Your task to perform on an android device: Open Amazon Image 0: 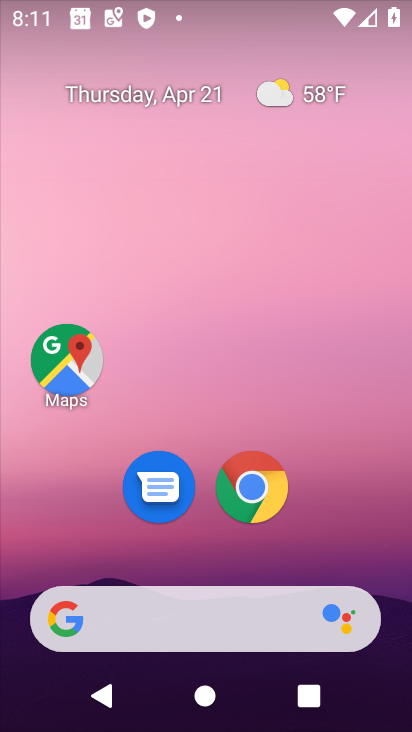
Step 0: drag from (349, 518) to (279, 15)
Your task to perform on an android device: Open Amazon Image 1: 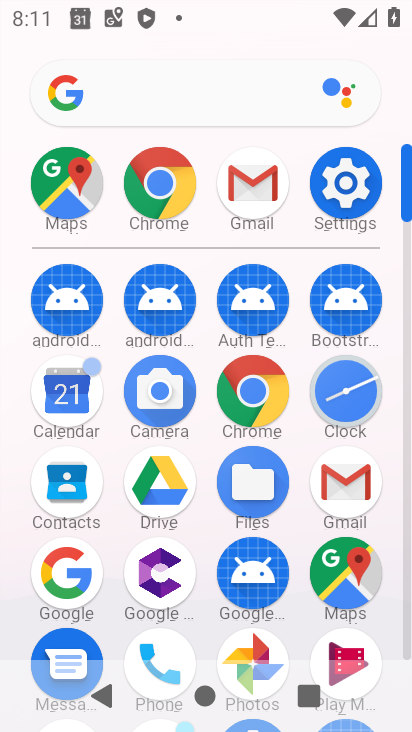
Step 1: click (160, 173)
Your task to perform on an android device: Open Amazon Image 2: 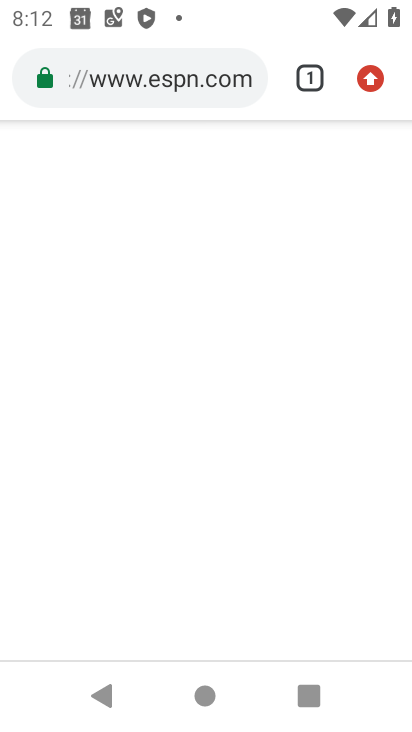
Step 2: click (156, 74)
Your task to perform on an android device: Open Amazon Image 3: 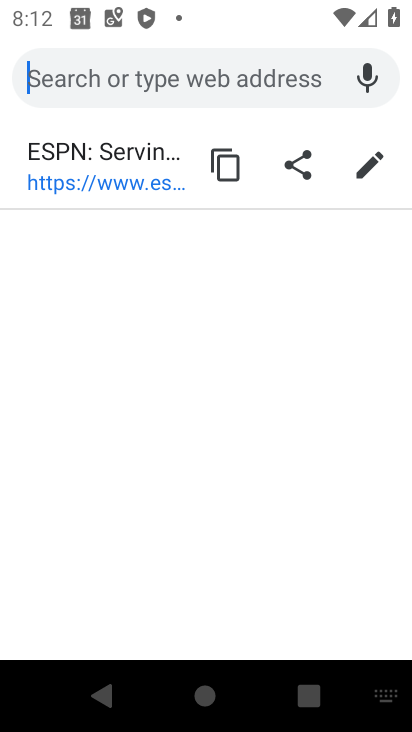
Step 3: type "Amazon"
Your task to perform on an android device: Open Amazon Image 4: 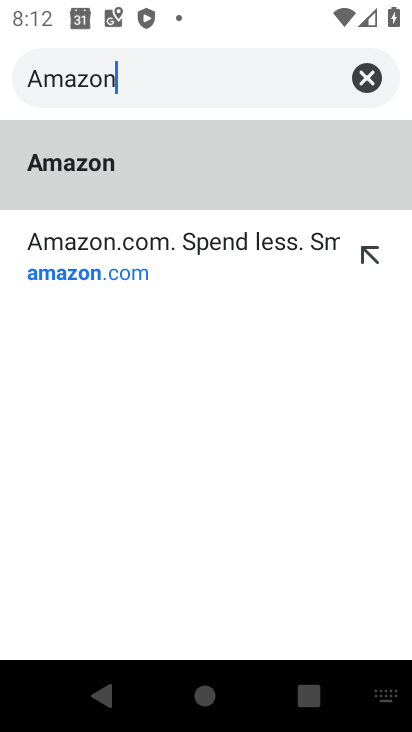
Step 4: type ""
Your task to perform on an android device: Open Amazon Image 5: 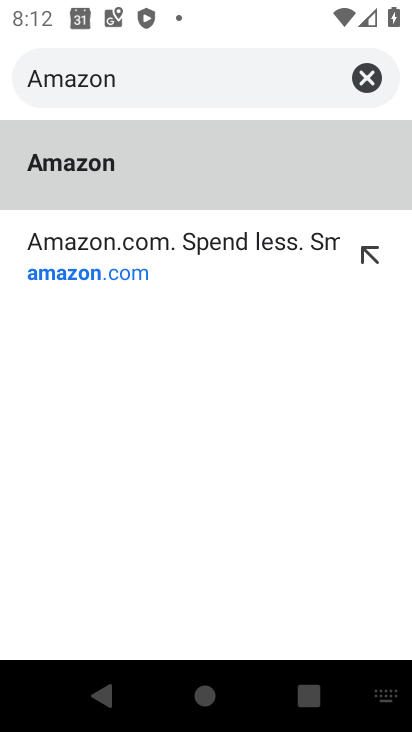
Step 5: click (216, 189)
Your task to perform on an android device: Open Amazon Image 6: 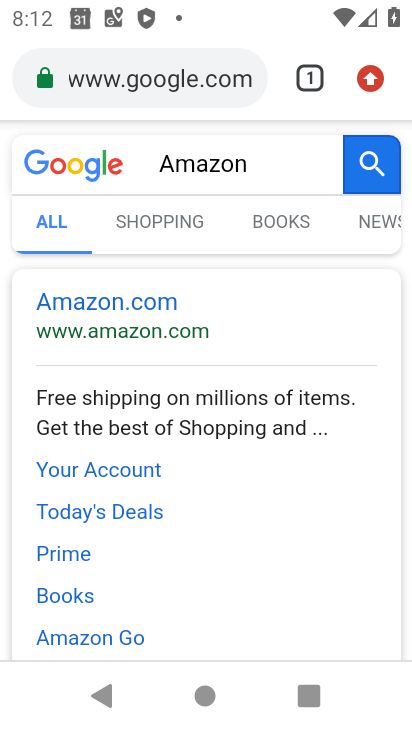
Step 6: click (143, 300)
Your task to perform on an android device: Open Amazon Image 7: 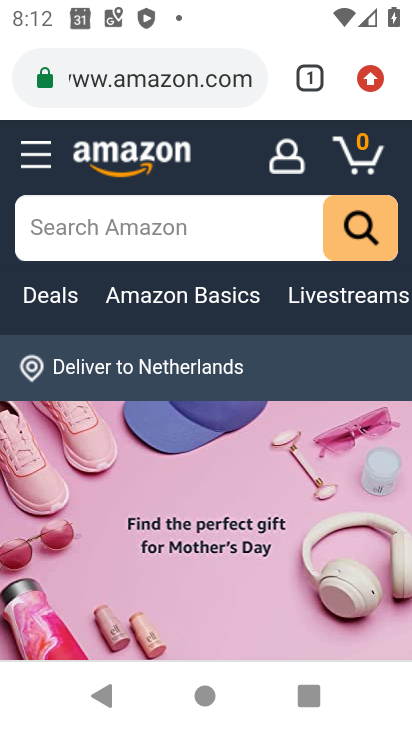
Step 7: task complete